Your task to perform on an android device: manage bookmarks in the chrome app Image 0: 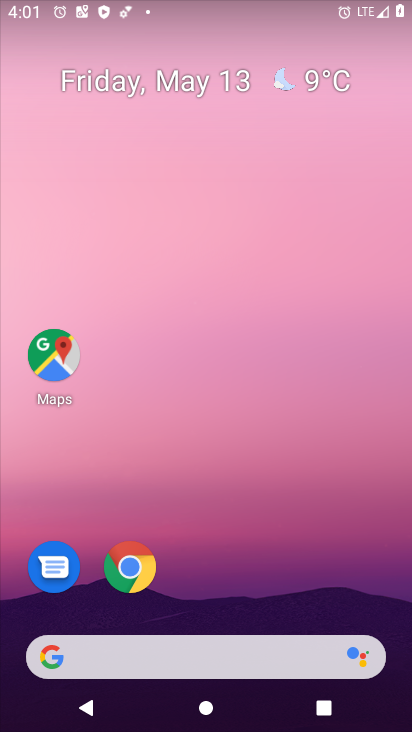
Step 0: click (138, 574)
Your task to perform on an android device: manage bookmarks in the chrome app Image 1: 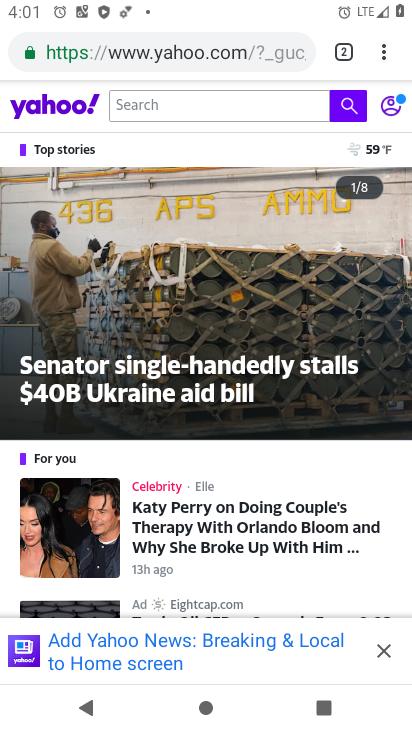
Step 1: click (386, 46)
Your task to perform on an android device: manage bookmarks in the chrome app Image 2: 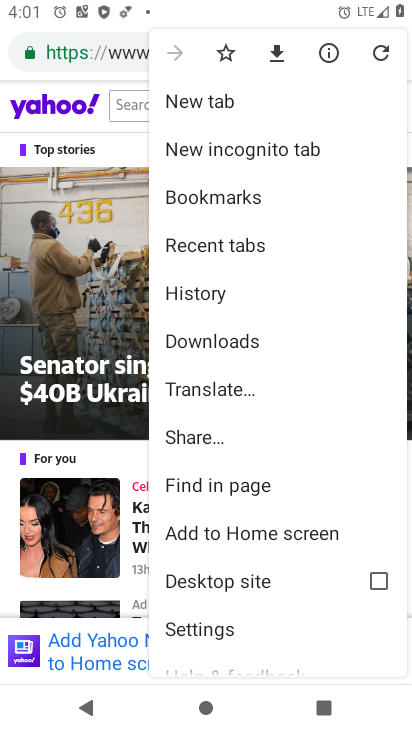
Step 2: click (220, 202)
Your task to perform on an android device: manage bookmarks in the chrome app Image 3: 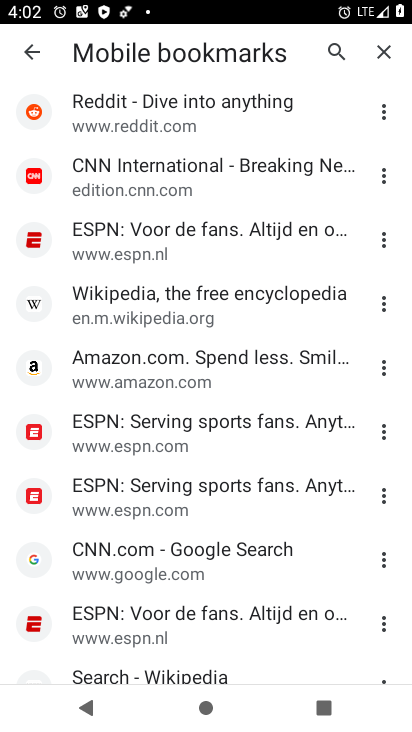
Step 3: click (385, 617)
Your task to perform on an android device: manage bookmarks in the chrome app Image 4: 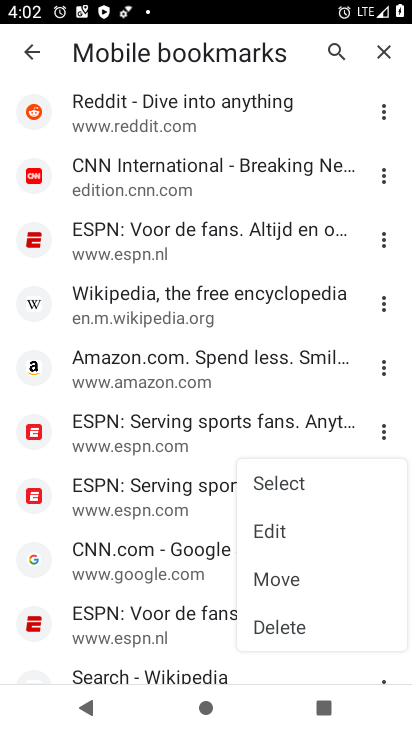
Step 4: click (281, 620)
Your task to perform on an android device: manage bookmarks in the chrome app Image 5: 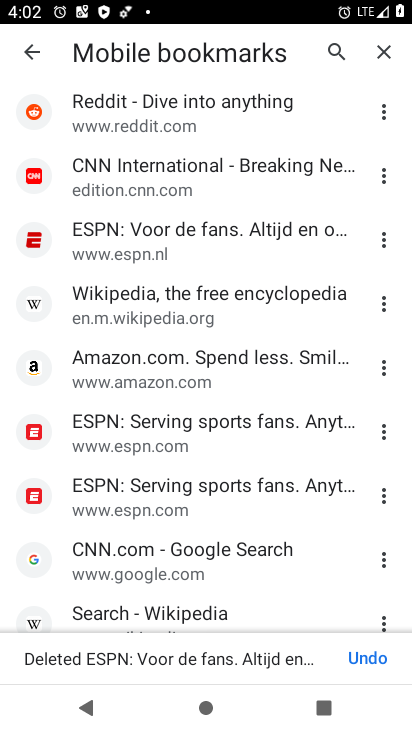
Step 5: task complete